Your task to perform on an android device: find which apps use the phone's location Image 0: 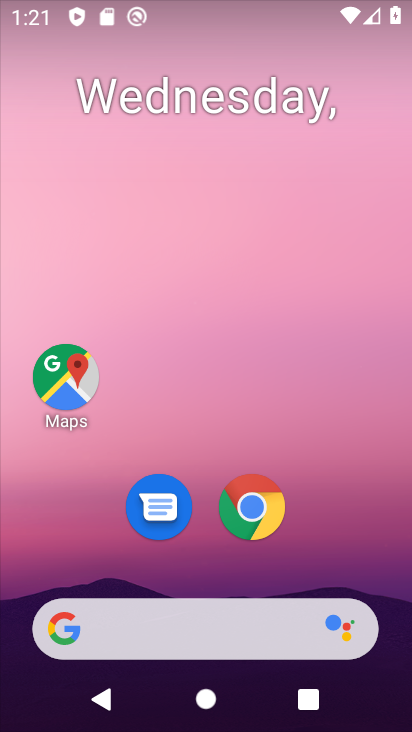
Step 0: drag from (345, 552) to (337, 184)
Your task to perform on an android device: find which apps use the phone's location Image 1: 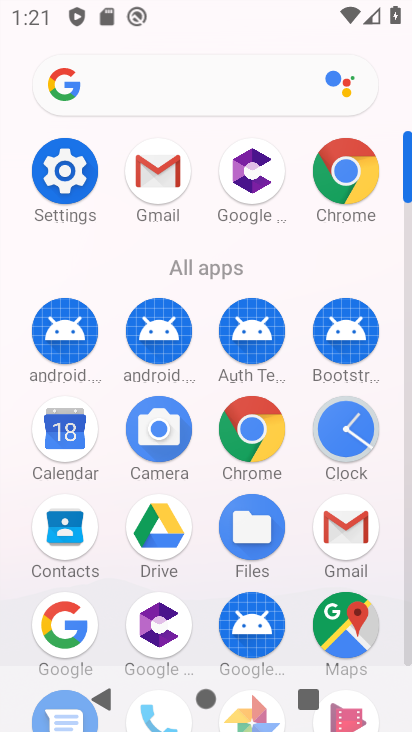
Step 1: click (48, 185)
Your task to perform on an android device: find which apps use the phone's location Image 2: 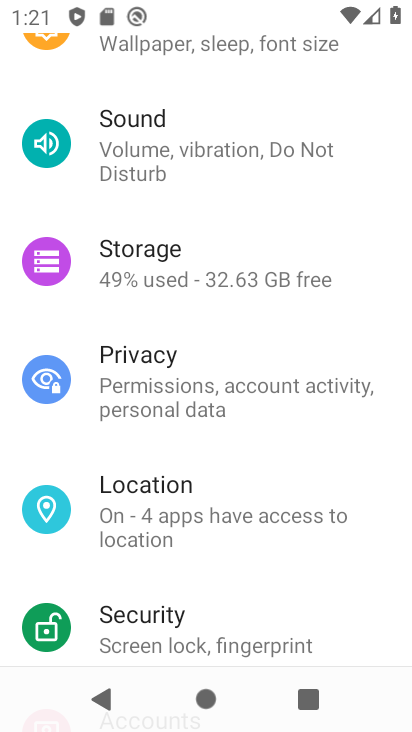
Step 2: click (228, 510)
Your task to perform on an android device: find which apps use the phone's location Image 3: 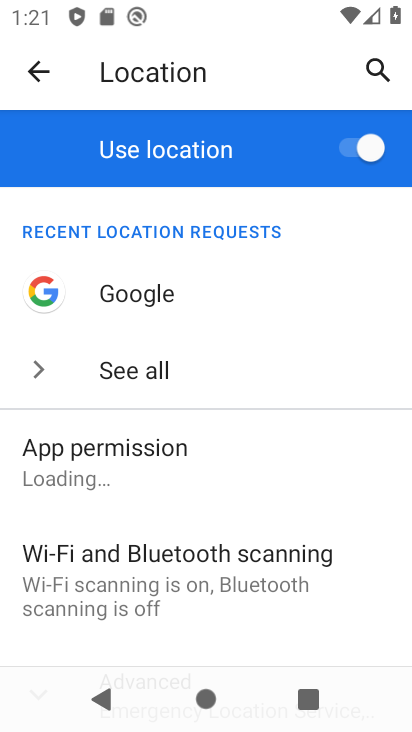
Step 3: click (104, 375)
Your task to perform on an android device: find which apps use the phone's location Image 4: 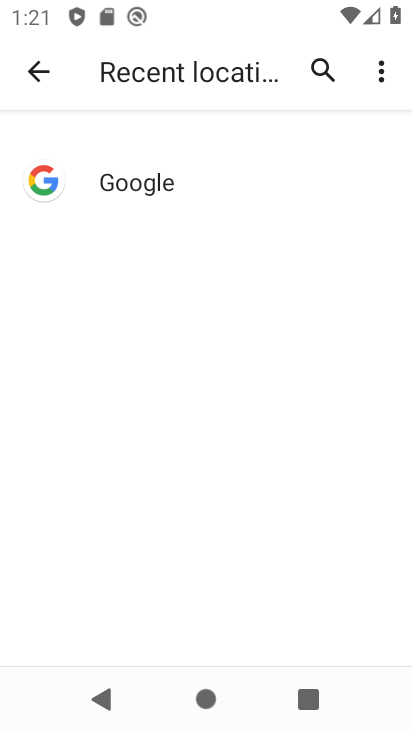
Step 4: task complete